Your task to perform on an android device: turn off sleep mode Image 0: 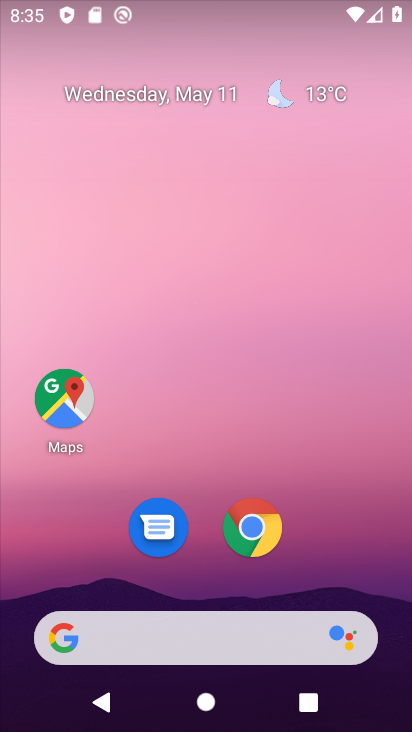
Step 0: drag from (288, 550) to (296, 269)
Your task to perform on an android device: turn off sleep mode Image 1: 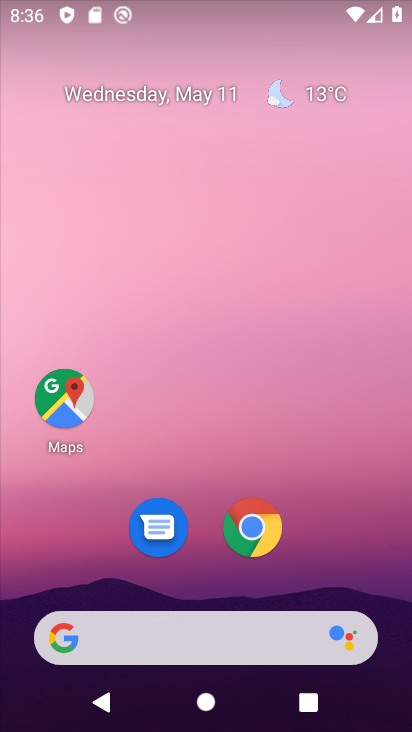
Step 1: drag from (316, 544) to (303, 338)
Your task to perform on an android device: turn off sleep mode Image 2: 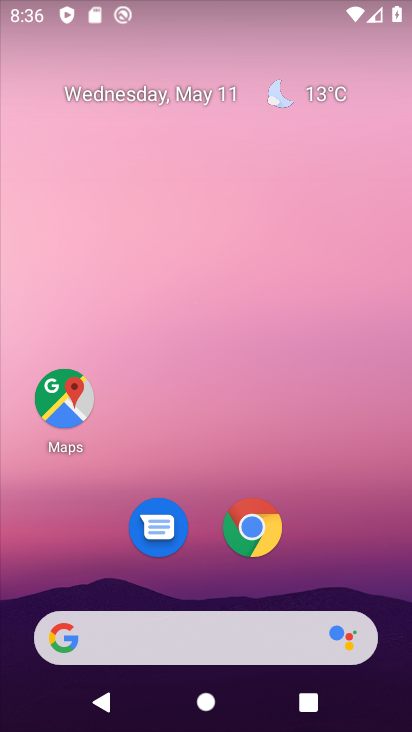
Step 2: drag from (340, 558) to (340, 142)
Your task to perform on an android device: turn off sleep mode Image 3: 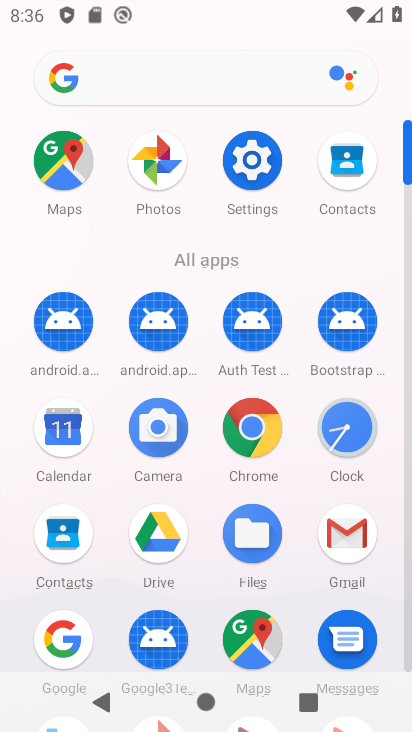
Step 3: click (252, 178)
Your task to perform on an android device: turn off sleep mode Image 4: 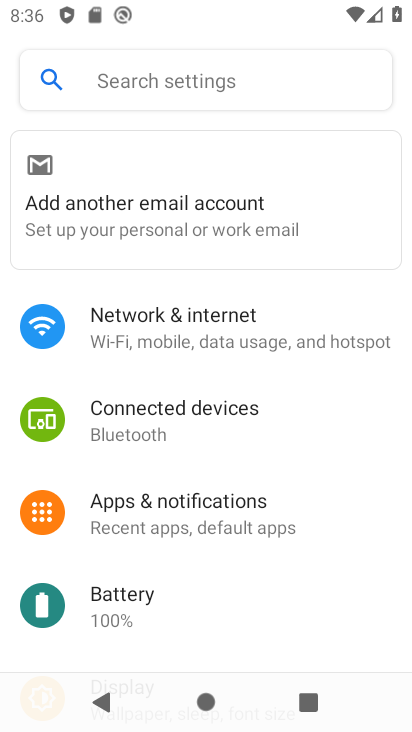
Step 4: drag from (225, 614) to (223, 333)
Your task to perform on an android device: turn off sleep mode Image 5: 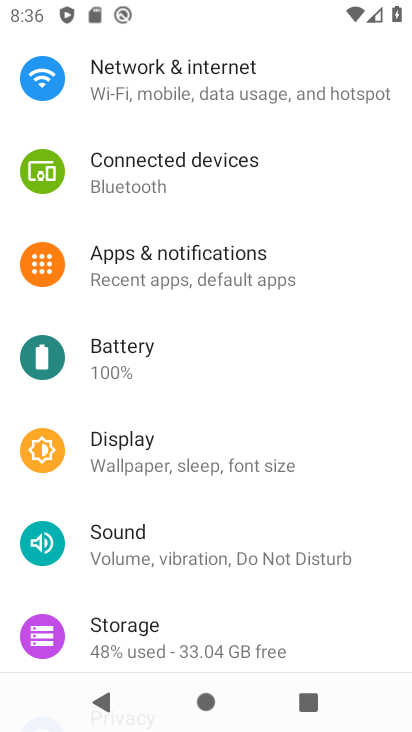
Step 5: click (211, 458)
Your task to perform on an android device: turn off sleep mode Image 6: 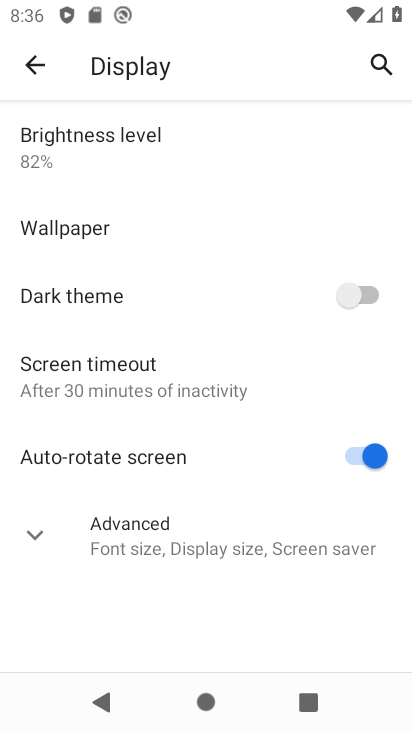
Step 6: click (42, 537)
Your task to perform on an android device: turn off sleep mode Image 7: 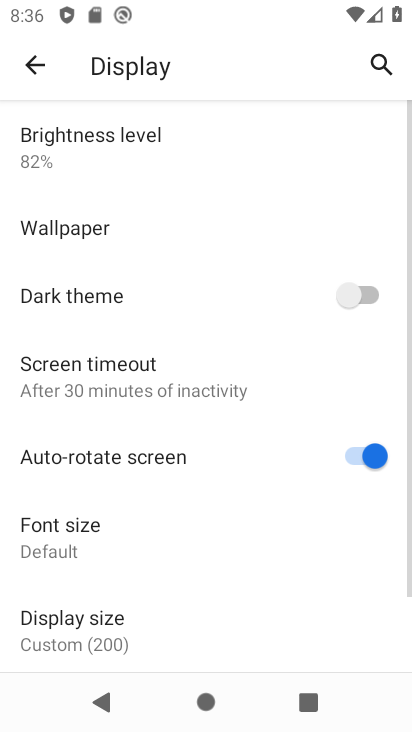
Step 7: task complete